Your task to perform on an android device: Open location settings Image 0: 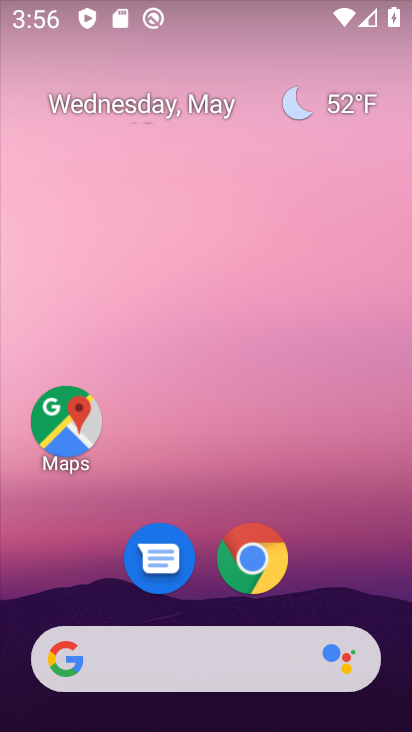
Step 0: drag from (403, 547) to (398, 111)
Your task to perform on an android device: Open location settings Image 1: 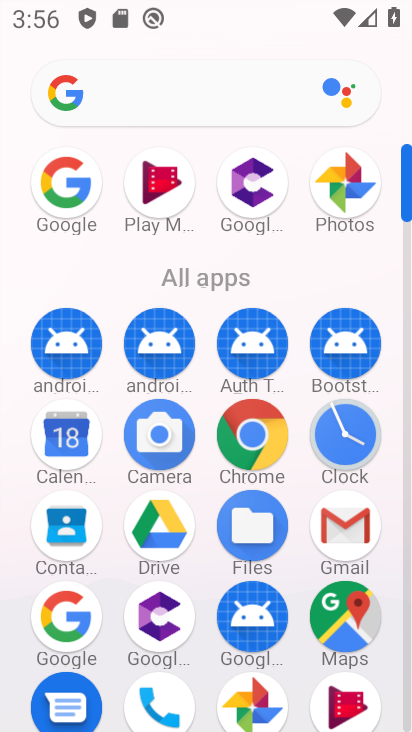
Step 1: drag from (196, 566) to (221, 296)
Your task to perform on an android device: Open location settings Image 2: 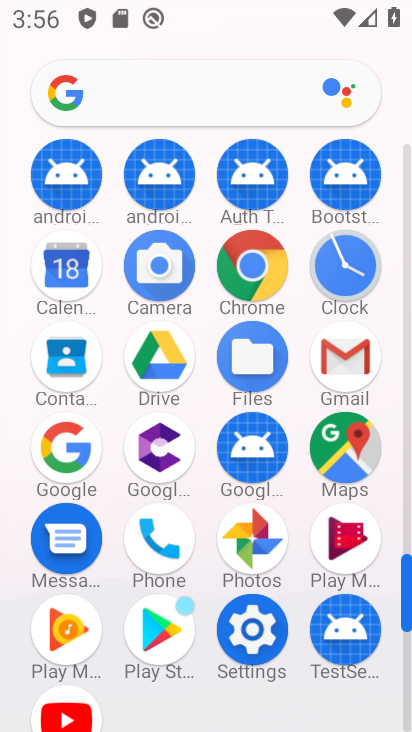
Step 2: click (236, 646)
Your task to perform on an android device: Open location settings Image 3: 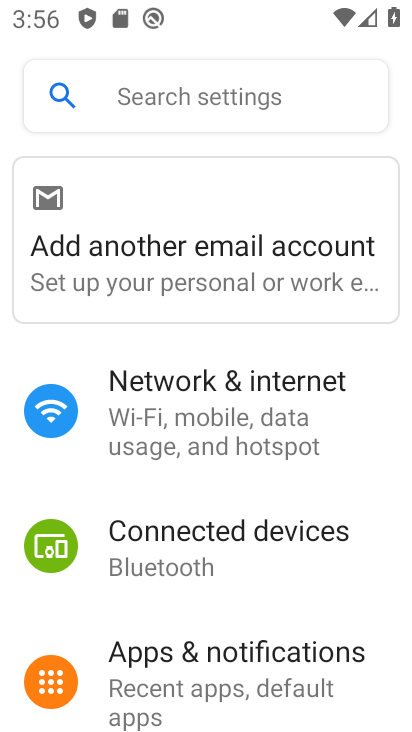
Step 3: drag from (237, 600) to (251, 266)
Your task to perform on an android device: Open location settings Image 4: 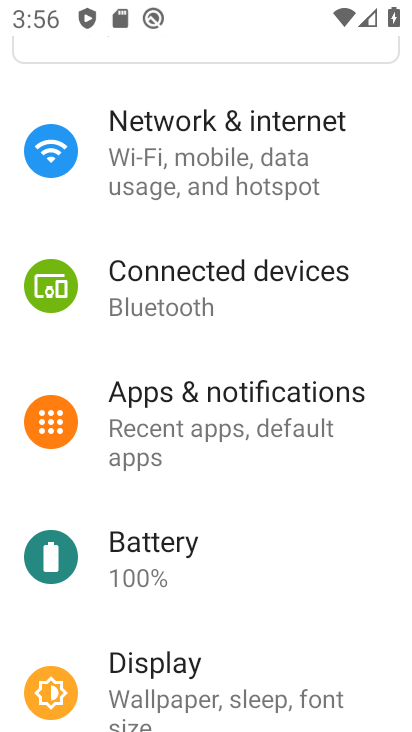
Step 4: drag from (246, 685) to (276, 365)
Your task to perform on an android device: Open location settings Image 5: 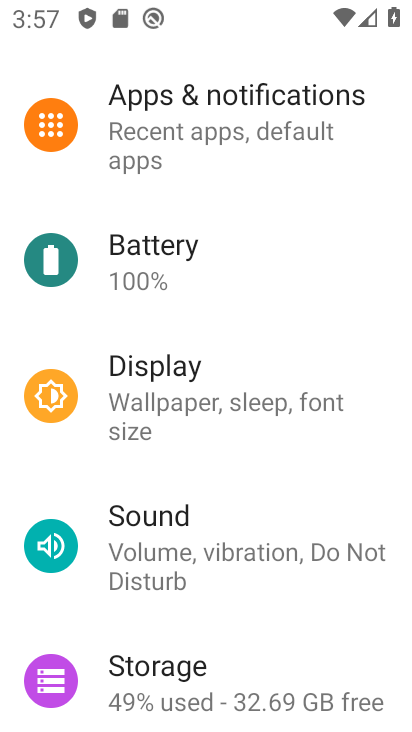
Step 5: drag from (277, 636) to (312, 246)
Your task to perform on an android device: Open location settings Image 6: 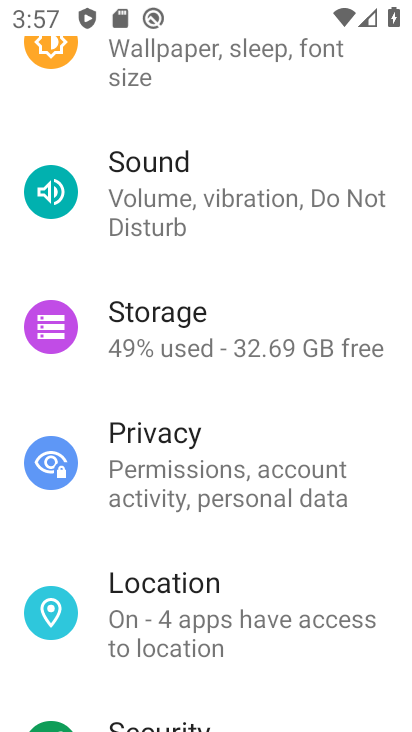
Step 6: click (255, 616)
Your task to perform on an android device: Open location settings Image 7: 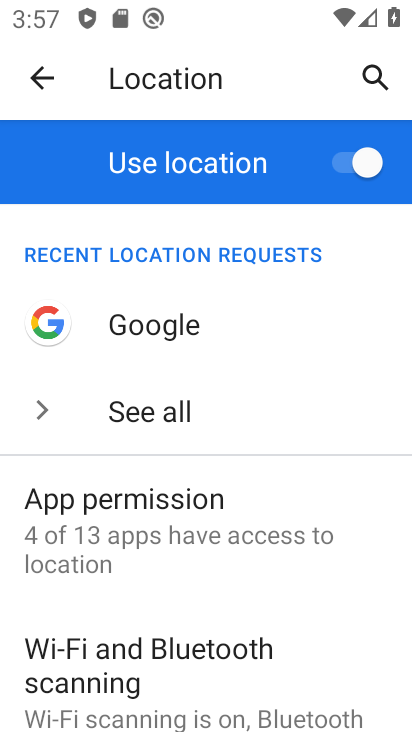
Step 7: task complete